Your task to perform on an android device: What's on my calendar today? Image 0: 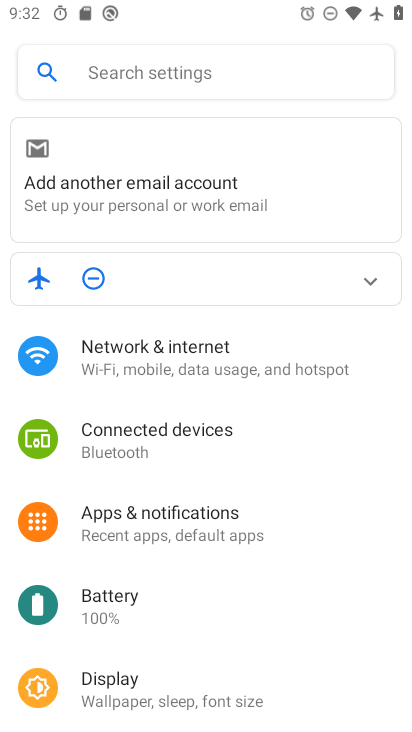
Step 0: press home button
Your task to perform on an android device: What's on my calendar today? Image 1: 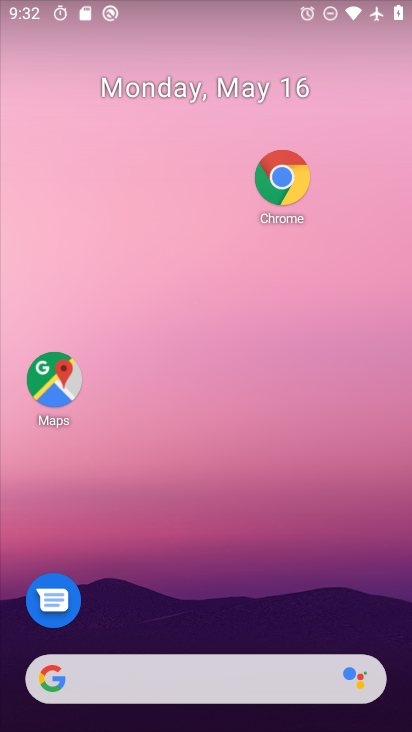
Step 1: drag from (159, 679) to (301, 237)
Your task to perform on an android device: What's on my calendar today? Image 2: 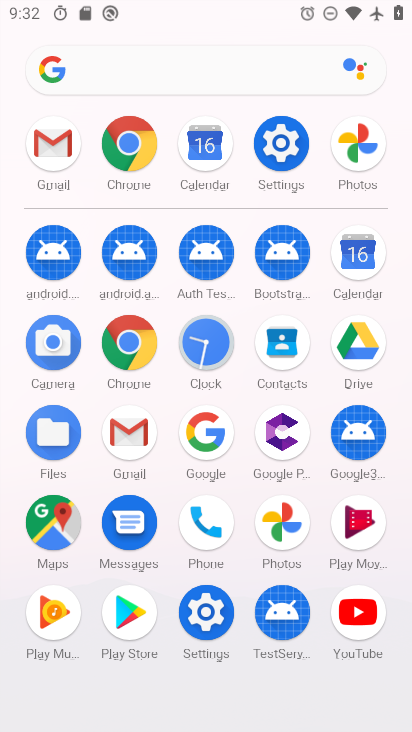
Step 2: click (354, 264)
Your task to perform on an android device: What's on my calendar today? Image 3: 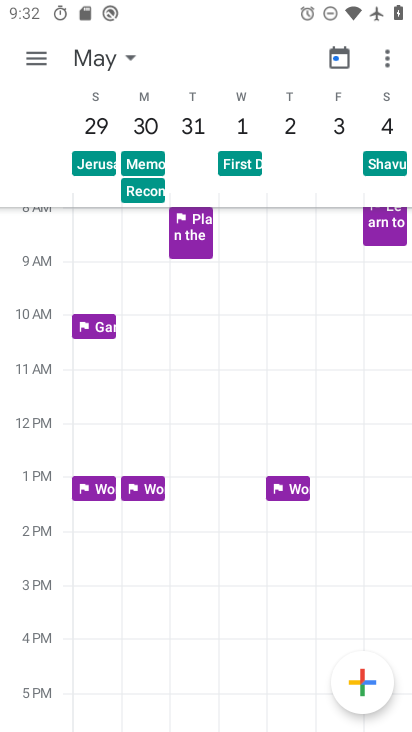
Step 3: click (90, 65)
Your task to perform on an android device: What's on my calendar today? Image 4: 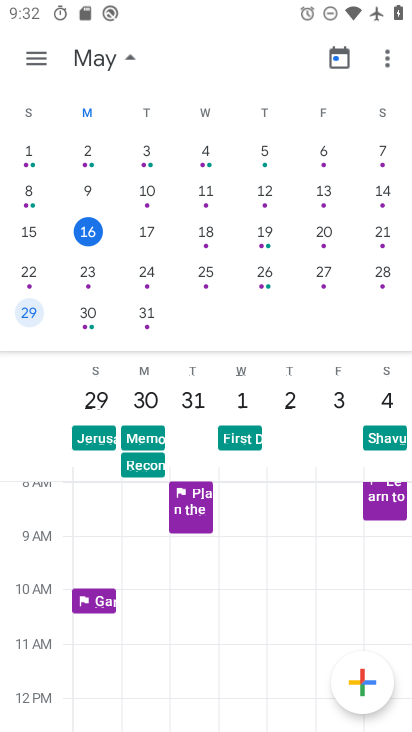
Step 4: click (103, 59)
Your task to perform on an android device: What's on my calendar today? Image 5: 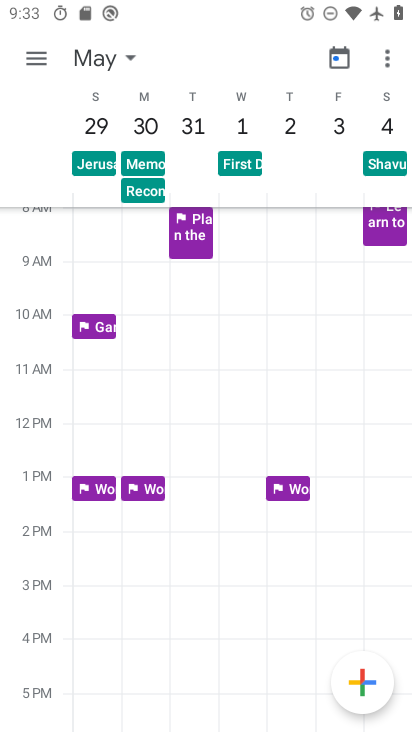
Step 5: click (98, 58)
Your task to perform on an android device: What's on my calendar today? Image 6: 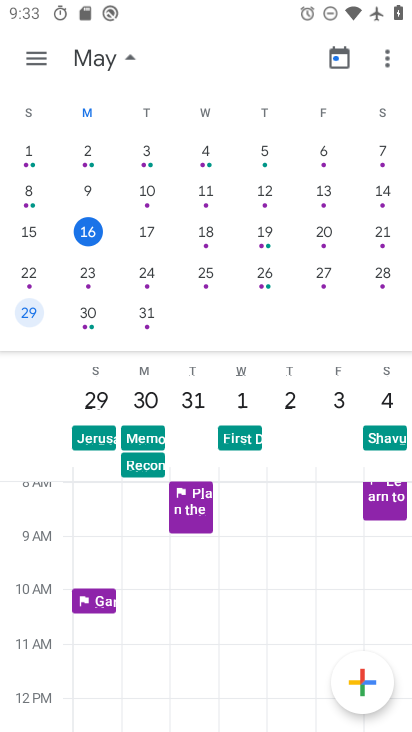
Step 6: click (98, 226)
Your task to perform on an android device: What's on my calendar today? Image 7: 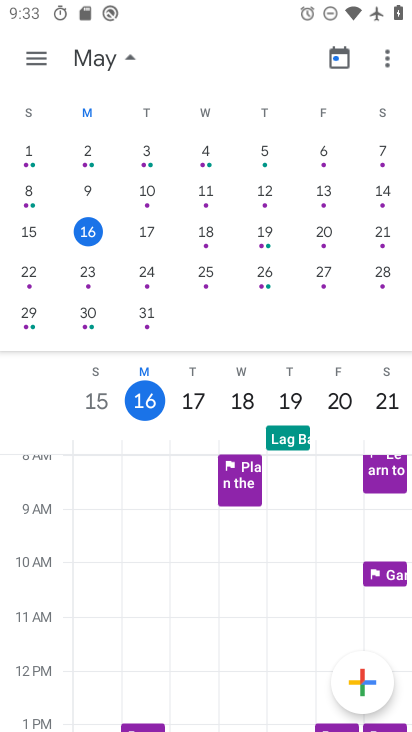
Step 7: click (37, 54)
Your task to perform on an android device: What's on my calendar today? Image 8: 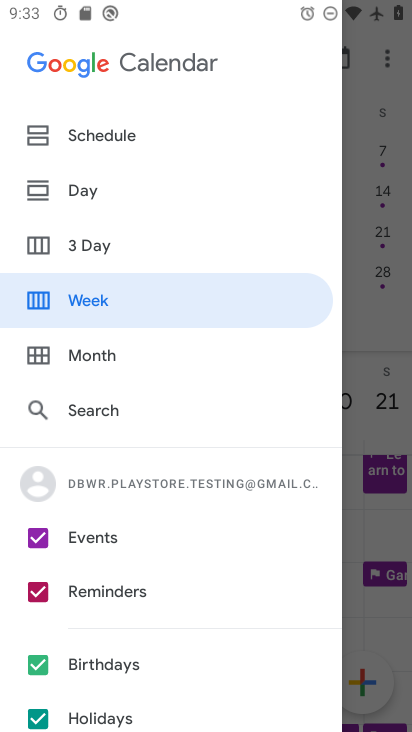
Step 8: click (86, 185)
Your task to perform on an android device: What's on my calendar today? Image 9: 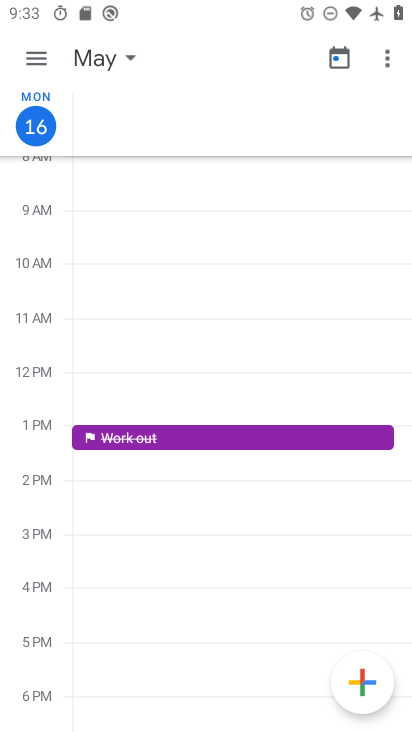
Step 9: task complete